Your task to perform on an android device: allow cookies in the chrome app Image 0: 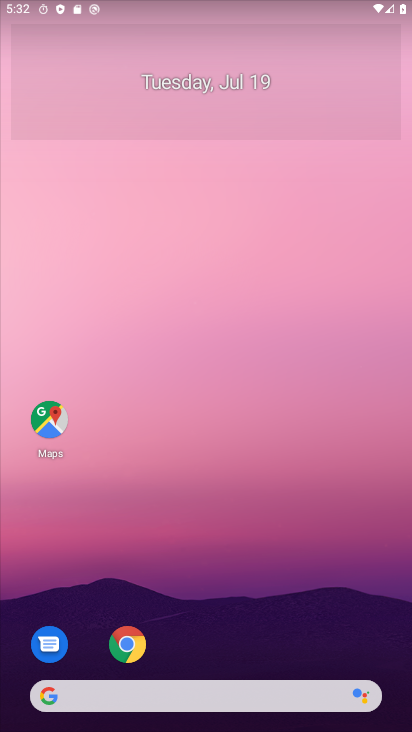
Step 0: click (131, 648)
Your task to perform on an android device: allow cookies in the chrome app Image 1: 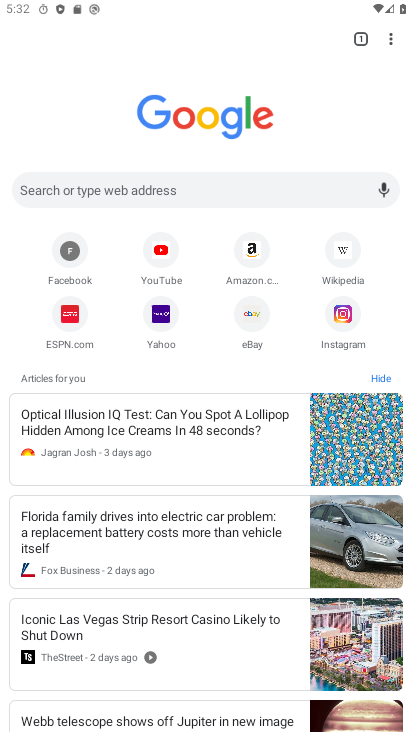
Step 1: click (389, 35)
Your task to perform on an android device: allow cookies in the chrome app Image 2: 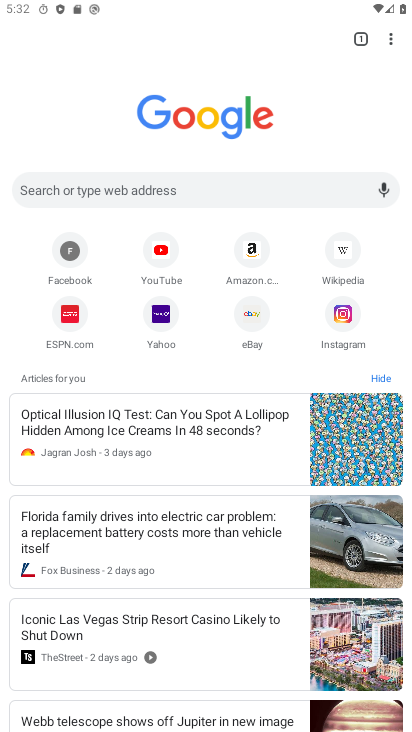
Step 2: click (392, 38)
Your task to perform on an android device: allow cookies in the chrome app Image 3: 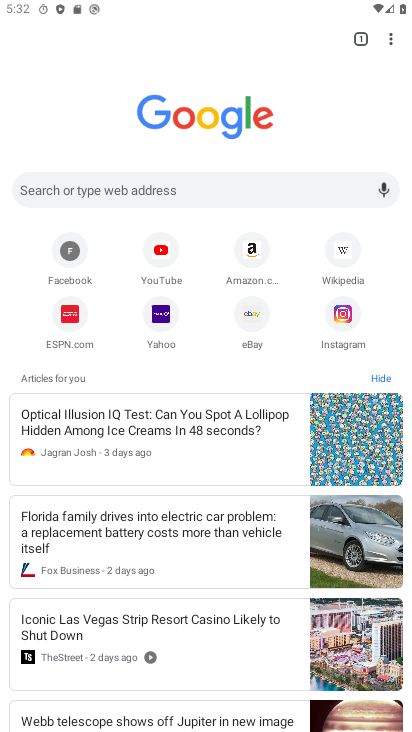
Step 3: click (393, 40)
Your task to perform on an android device: allow cookies in the chrome app Image 4: 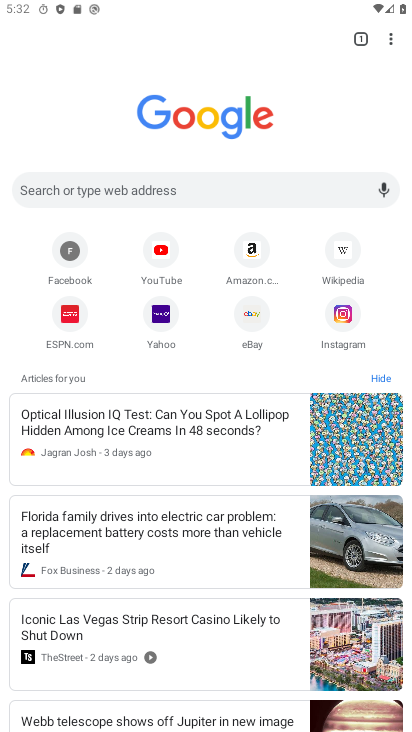
Step 4: click (387, 39)
Your task to perform on an android device: allow cookies in the chrome app Image 5: 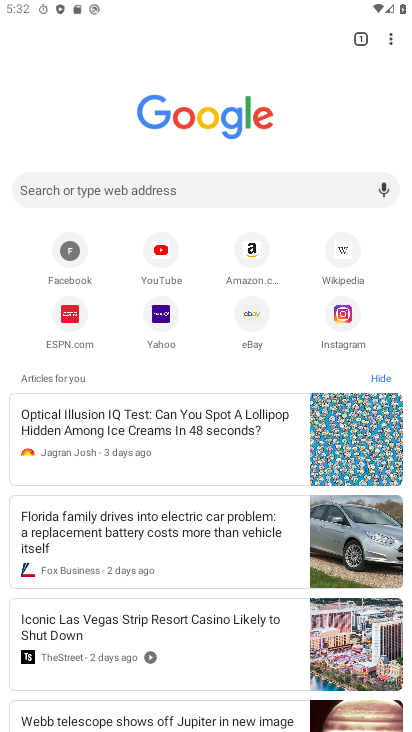
Step 5: click (389, 39)
Your task to perform on an android device: allow cookies in the chrome app Image 6: 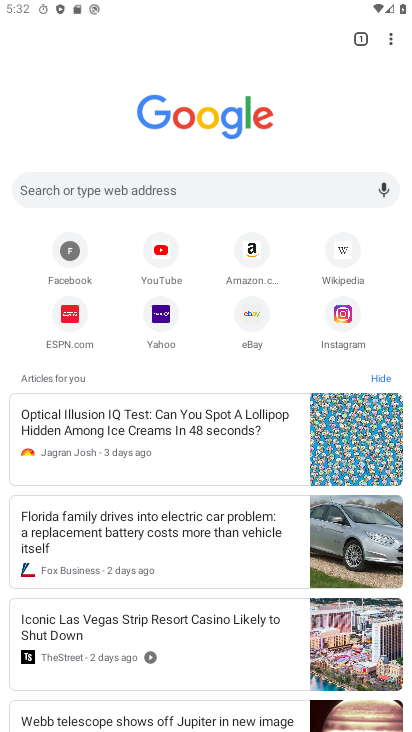
Step 6: click (392, 39)
Your task to perform on an android device: allow cookies in the chrome app Image 7: 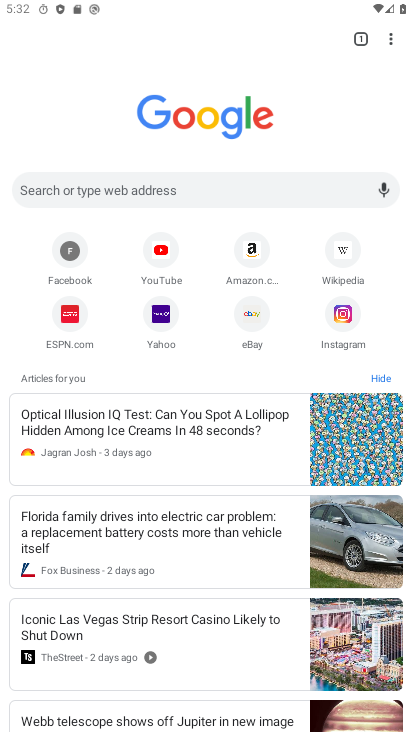
Step 7: click (393, 38)
Your task to perform on an android device: allow cookies in the chrome app Image 8: 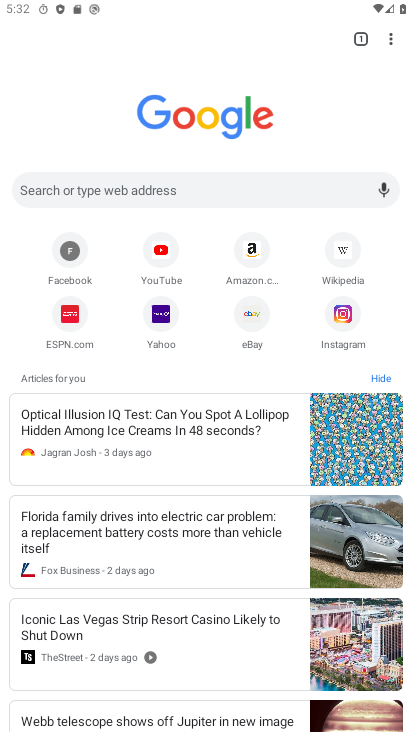
Step 8: click (387, 39)
Your task to perform on an android device: allow cookies in the chrome app Image 9: 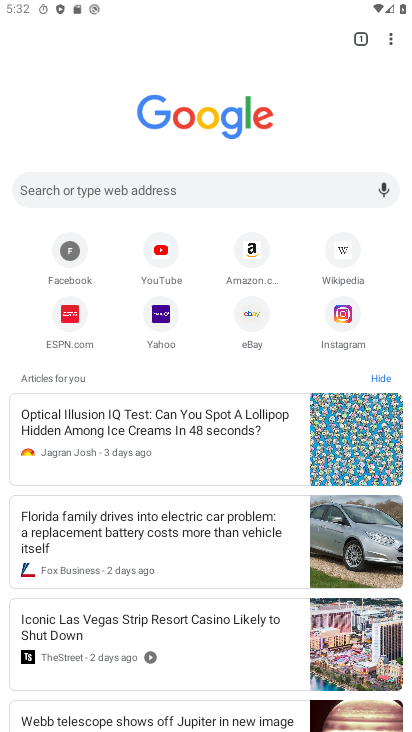
Step 9: click (391, 39)
Your task to perform on an android device: allow cookies in the chrome app Image 10: 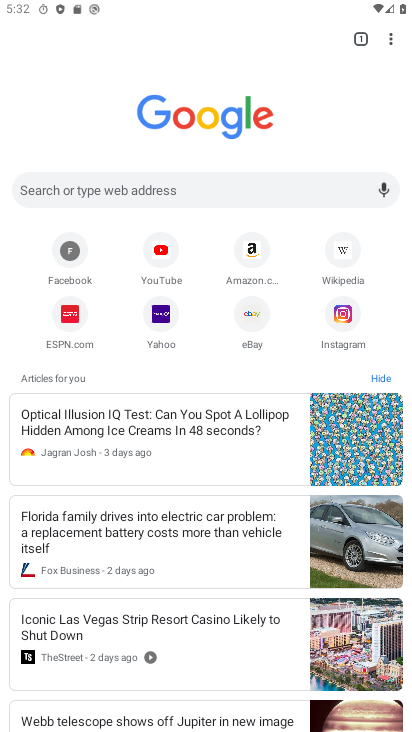
Step 10: click (391, 46)
Your task to perform on an android device: allow cookies in the chrome app Image 11: 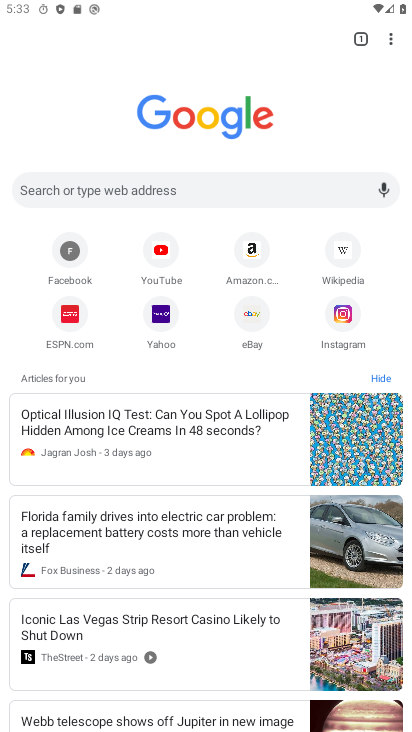
Step 11: click (389, 39)
Your task to perform on an android device: allow cookies in the chrome app Image 12: 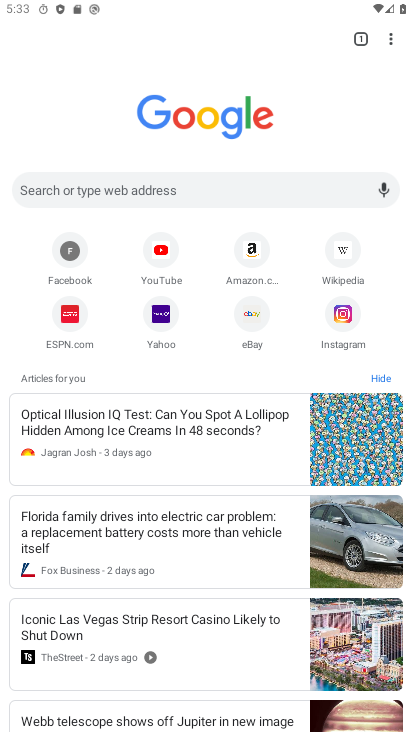
Step 12: click (388, 39)
Your task to perform on an android device: allow cookies in the chrome app Image 13: 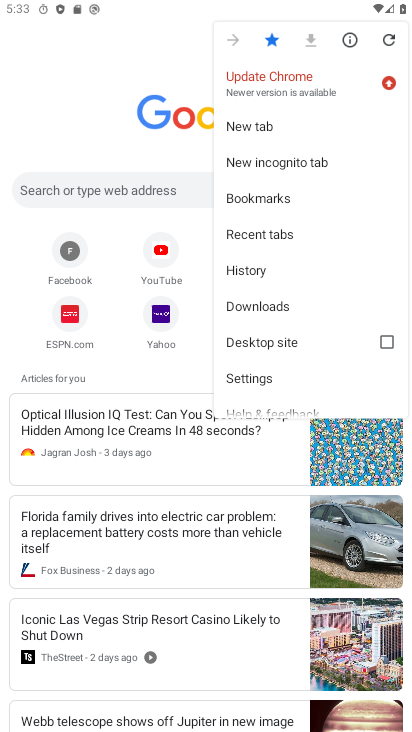
Step 13: click (255, 378)
Your task to perform on an android device: allow cookies in the chrome app Image 14: 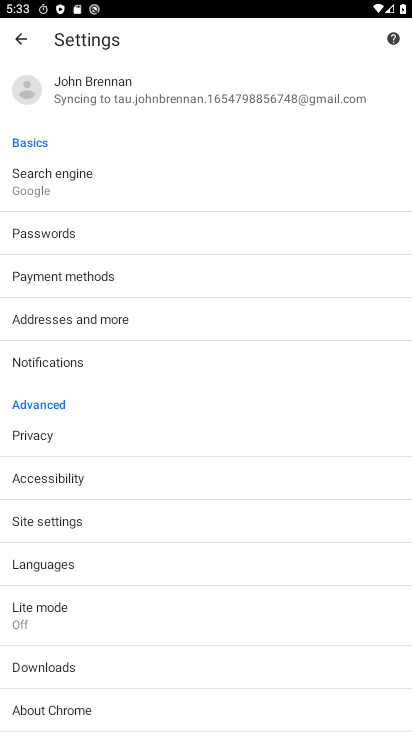
Step 14: click (42, 424)
Your task to perform on an android device: allow cookies in the chrome app Image 15: 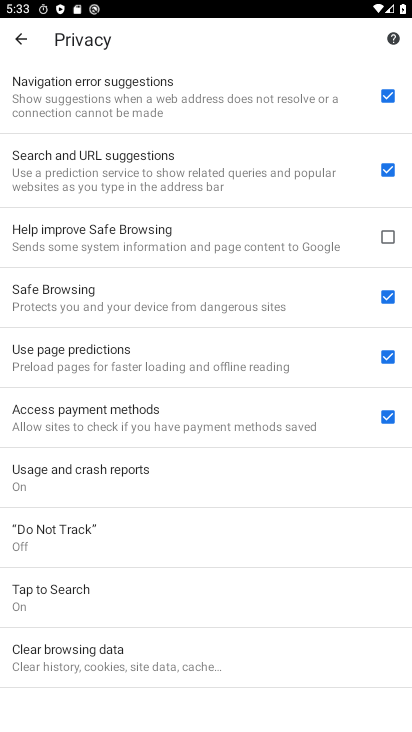
Step 15: click (22, 34)
Your task to perform on an android device: allow cookies in the chrome app Image 16: 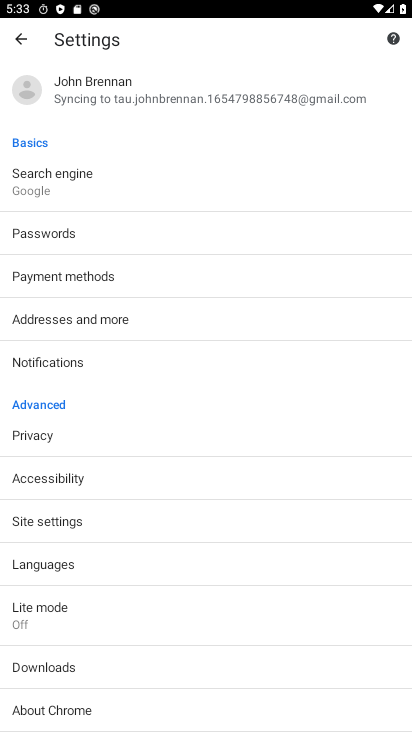
Step 16: click (68, 514)
Your task to perform on an android device: allow cookies in the chrome app Image 17: 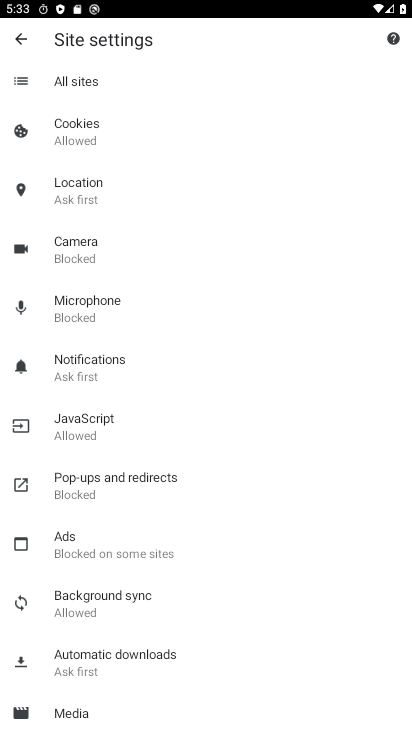
Step 17: click (76, 126)
Your task to perform on an android device: allow cookies in the chrome app Image 18: 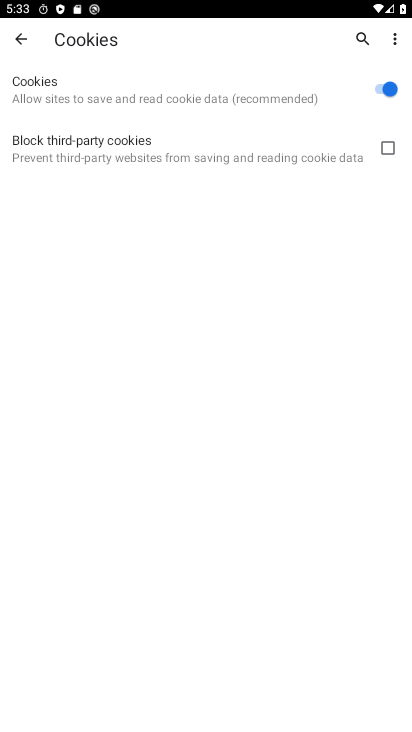
Step 18: task complete